Your task to perform on an android device: toggle sleep mode Image 0: 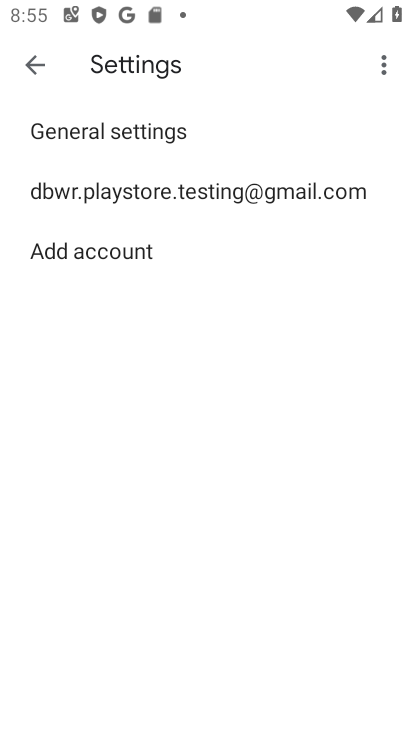
Step 0: press home button
Your task to perform on an android device: toggle sleep mode Image 1: 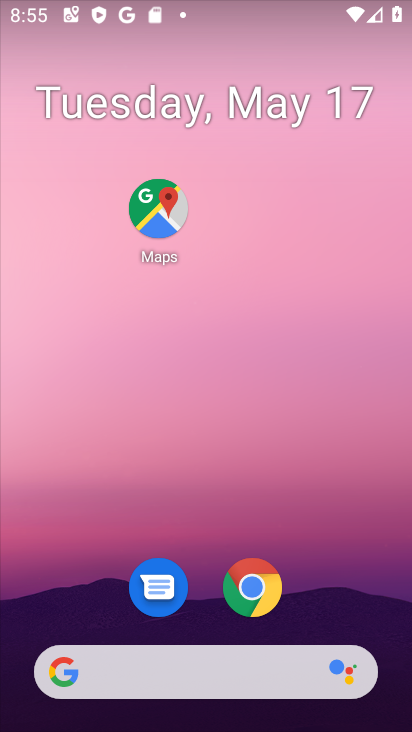
Step 1: drag from (39, 622) to (304, 180)
Your task to perform on an android device: toggle sleep mode Image 2: 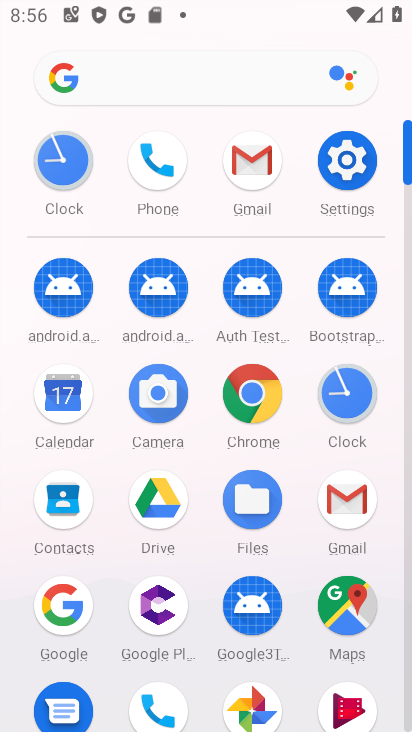
Step 2: click (328, 153)
Your task to perform on an android device: toggle sleep mode Image 3: 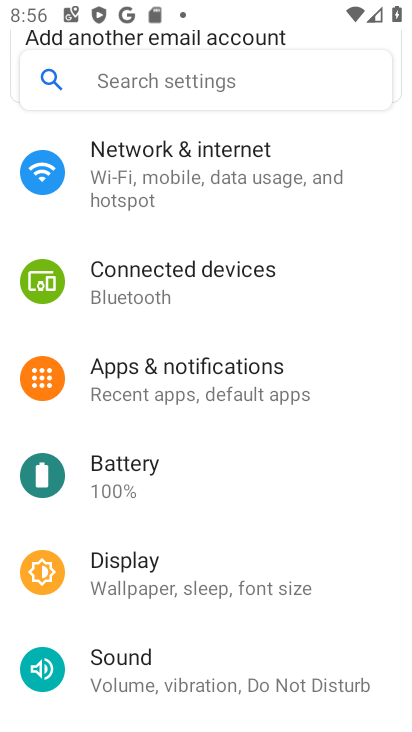
Step 3: click (170, 599)
Your task to perform on an android device: toggle sleep mode Image 4: 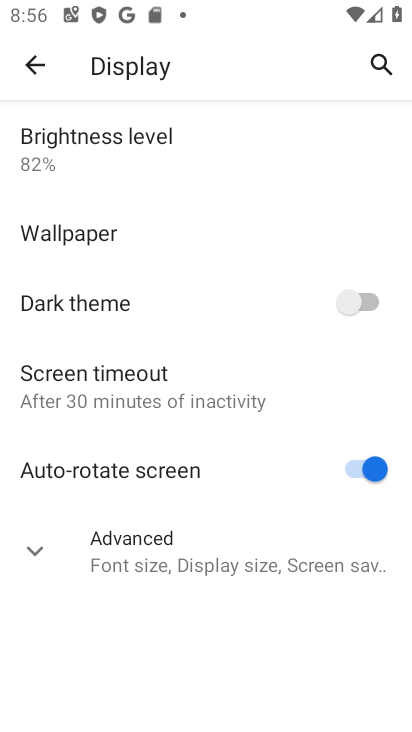
Step 4: task complete